Your task to perform on an android device: change the clock style Image 0: 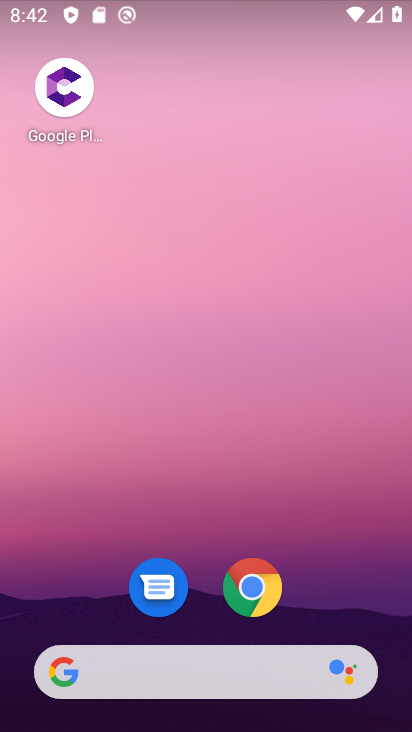
Step 0: drag from (315, 516) to (283, 228)
Your task to perform on an android device: change the clock style Image 1: 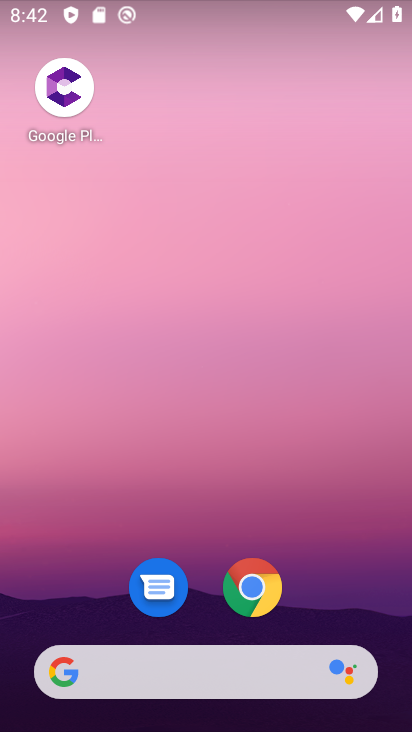
Step 1: drag from (336, 543) to (316, 22)
Your task to perform on an android device: change the clock style Image 2: 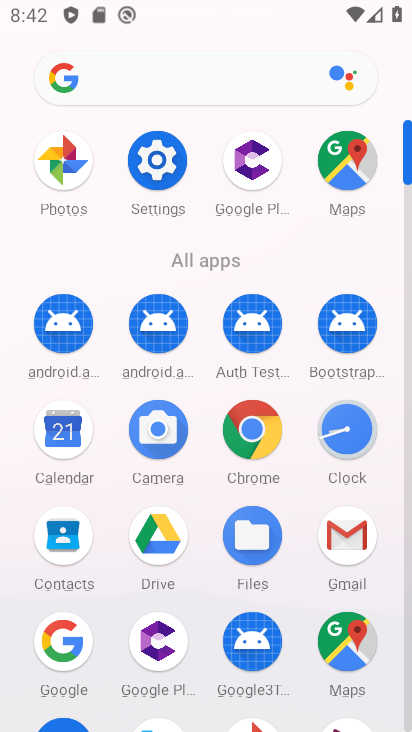
Step 2: click (351, 436)
Your task to perform on an android device: change the clock style Image 3: 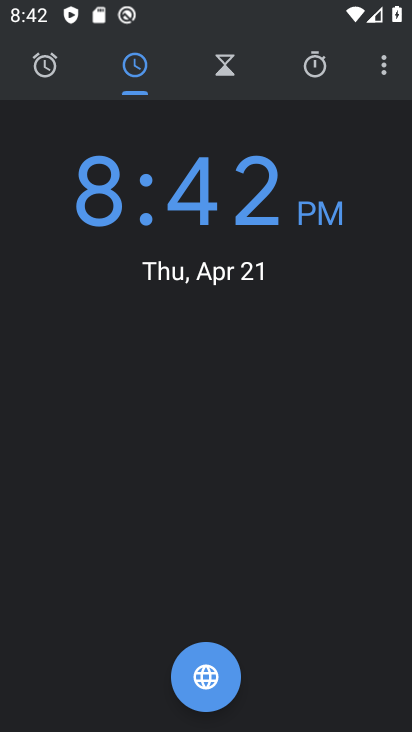
Step 3: click (383, 64)
Your task to perform on an android device: change the clock style Image 4: 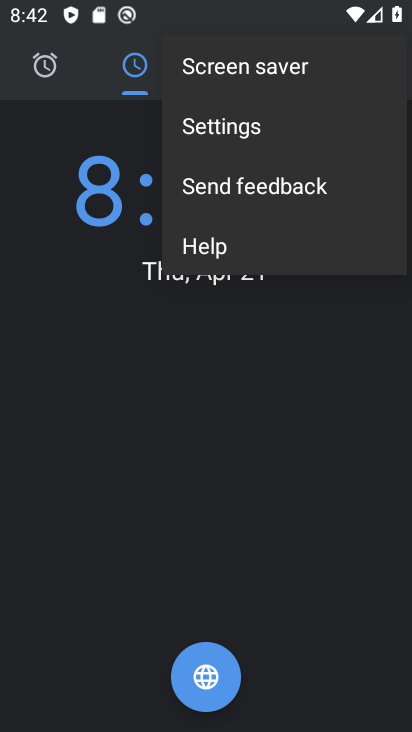
Step 4: click (258, 122)
Your task to perform on an android device: change the clock style Image 5: 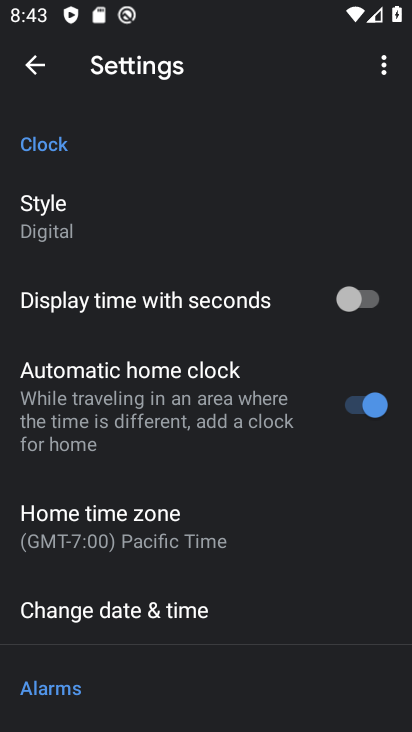
Step 5: click (71, 204)
Your task to perform on an android device: change the clock style Image 6: 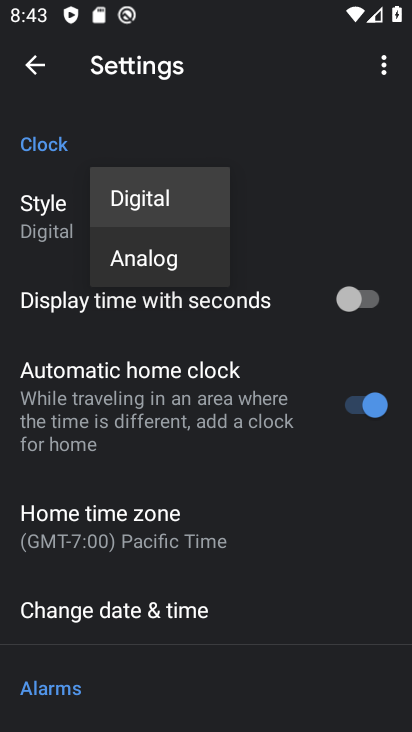
Step 6: click (140, 246)
Your task to perform on an android device: change the clock style Image 7: 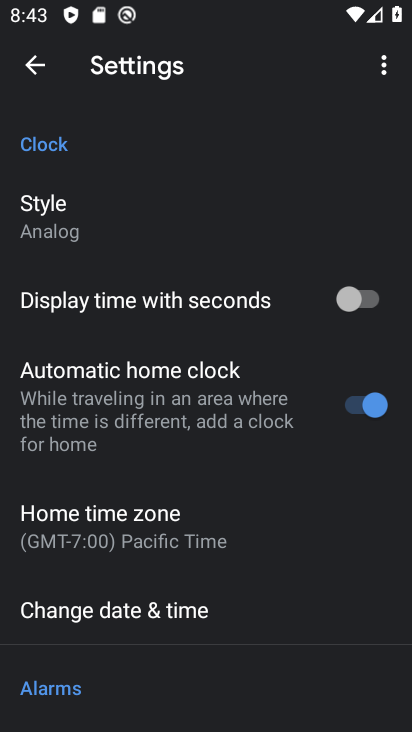
Step 7: task complete